Your task to perform on an android device: Open calendar and show me the fourth week of next month Image 0: 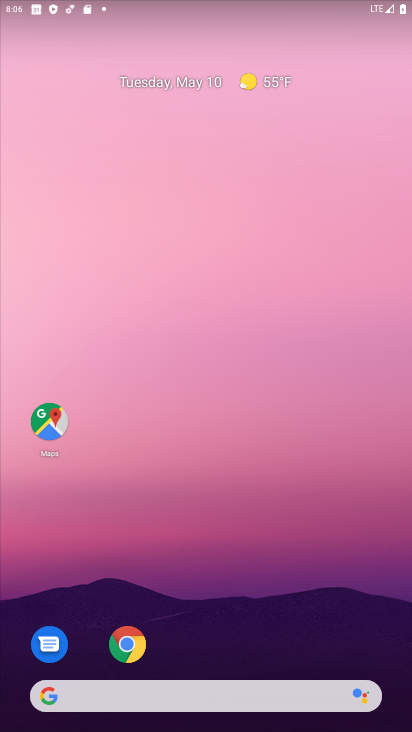
Step 0: drag from (236, 649) to (235, 132)
Your task to perform on an android device: Open calendar and show me the fourth week of next month Image 1: 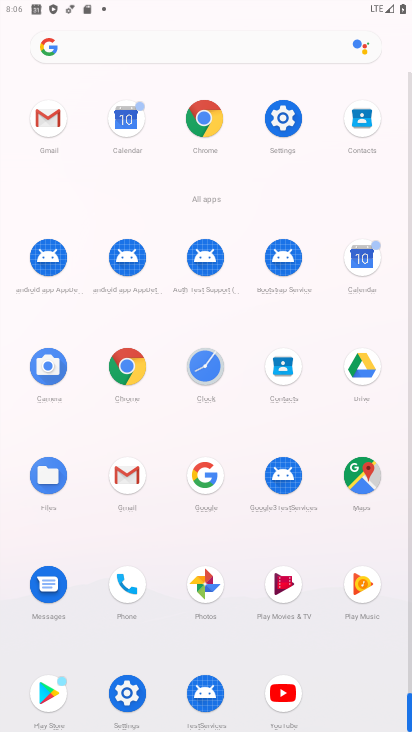
Step 1: click (366, 272)
Your task to perform on an android device: Open calendar and show me the fourth week of next month Image 2: 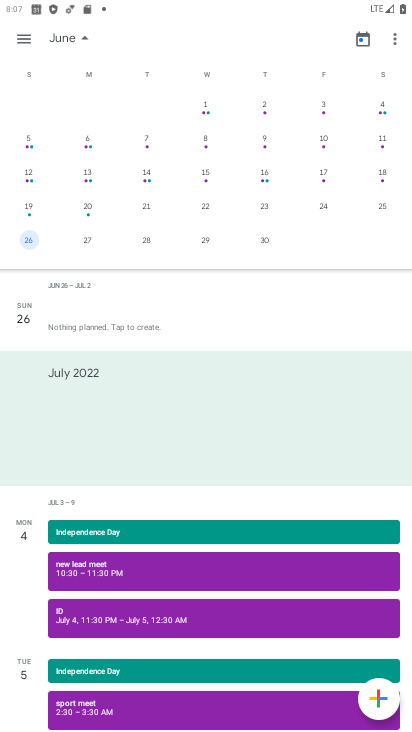
Step 2: task complete